Your task to perform on an android device: Show me popular games on the Play Store Image 0: 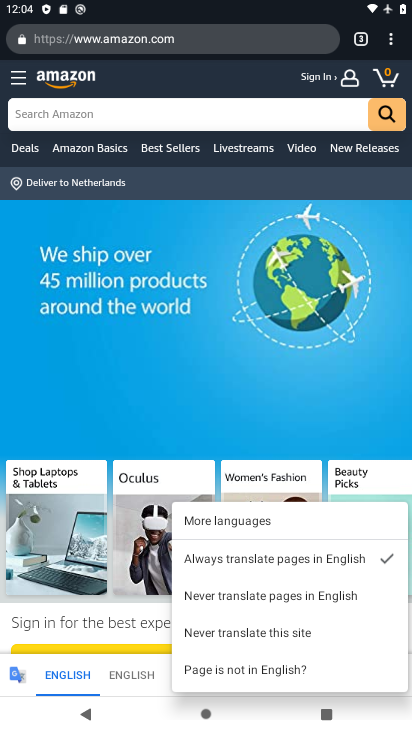
Step 0: press home button
Your task to perform on an android device: Show me popular games on the Play Store Image 1: 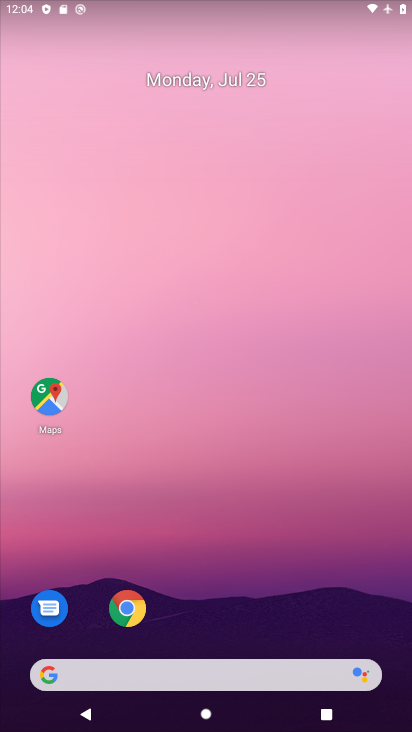
Step 1: drag from (172, 685) to (178, 141)
Your task to perform on an android device: Show me popular games on the Play Store Image 2: 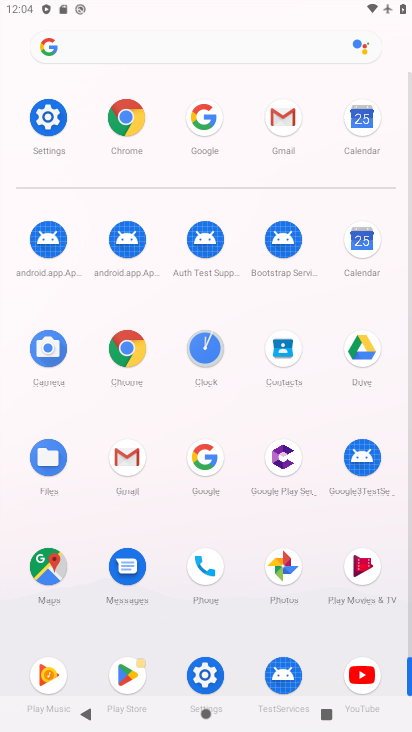
Step 2: click (123, 676)
Your task to perform on an android device: Show me popular games on the Play Store Image 3: 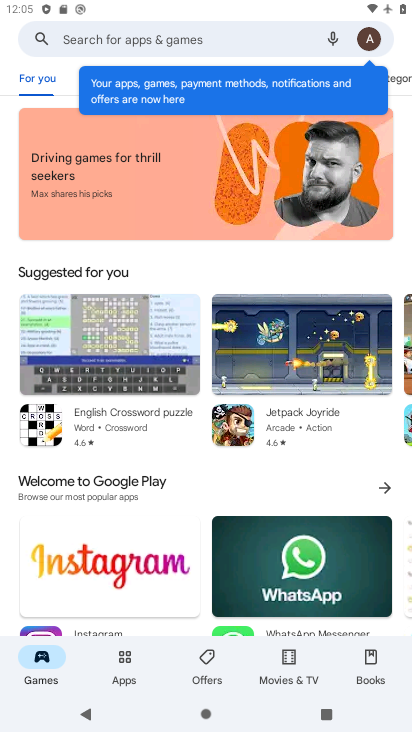
Step 3: task complete